Your task to perform on an android device: What's on my calendar today? Image 0: 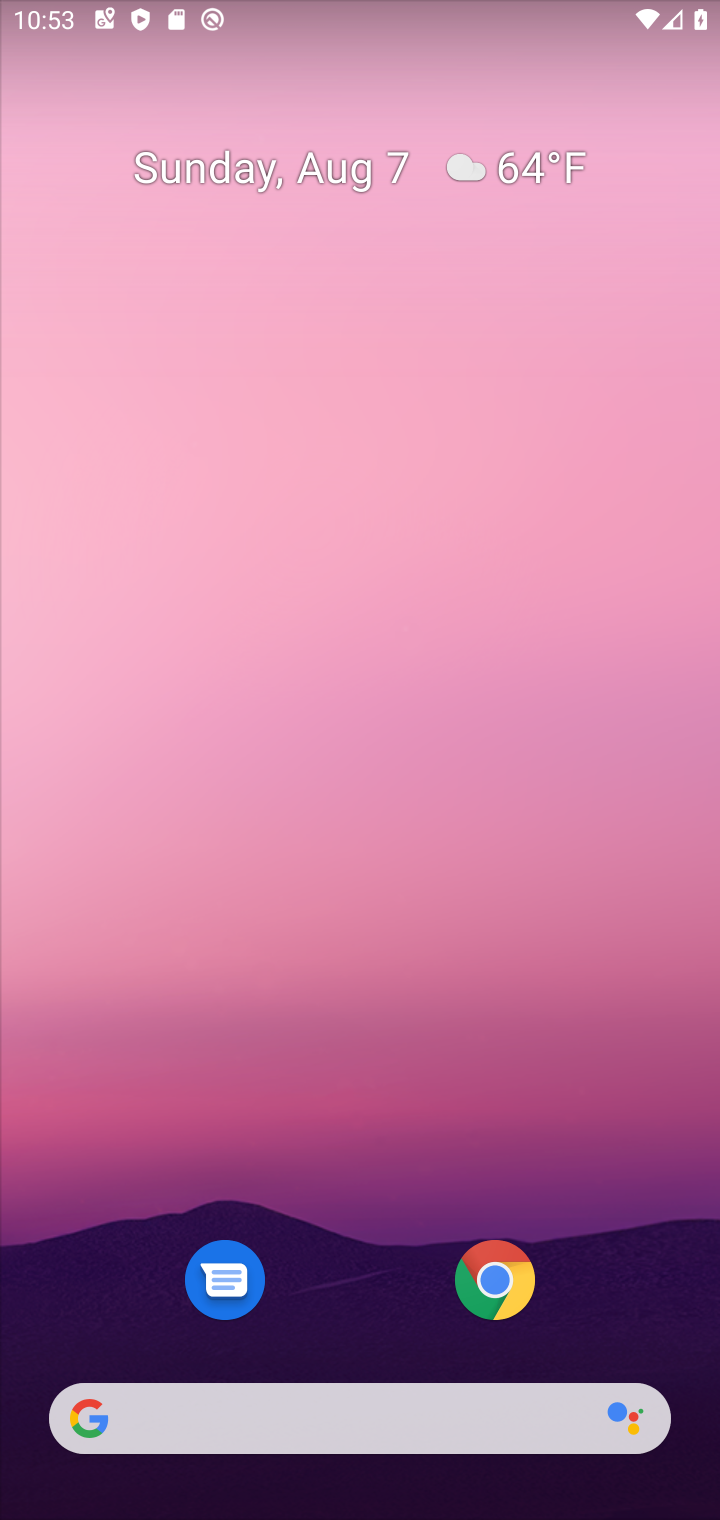
Step 0: drag from (351, 1017) to (317, 133)
Your task to perform on an android device: What's on my calendar today? Image 1: 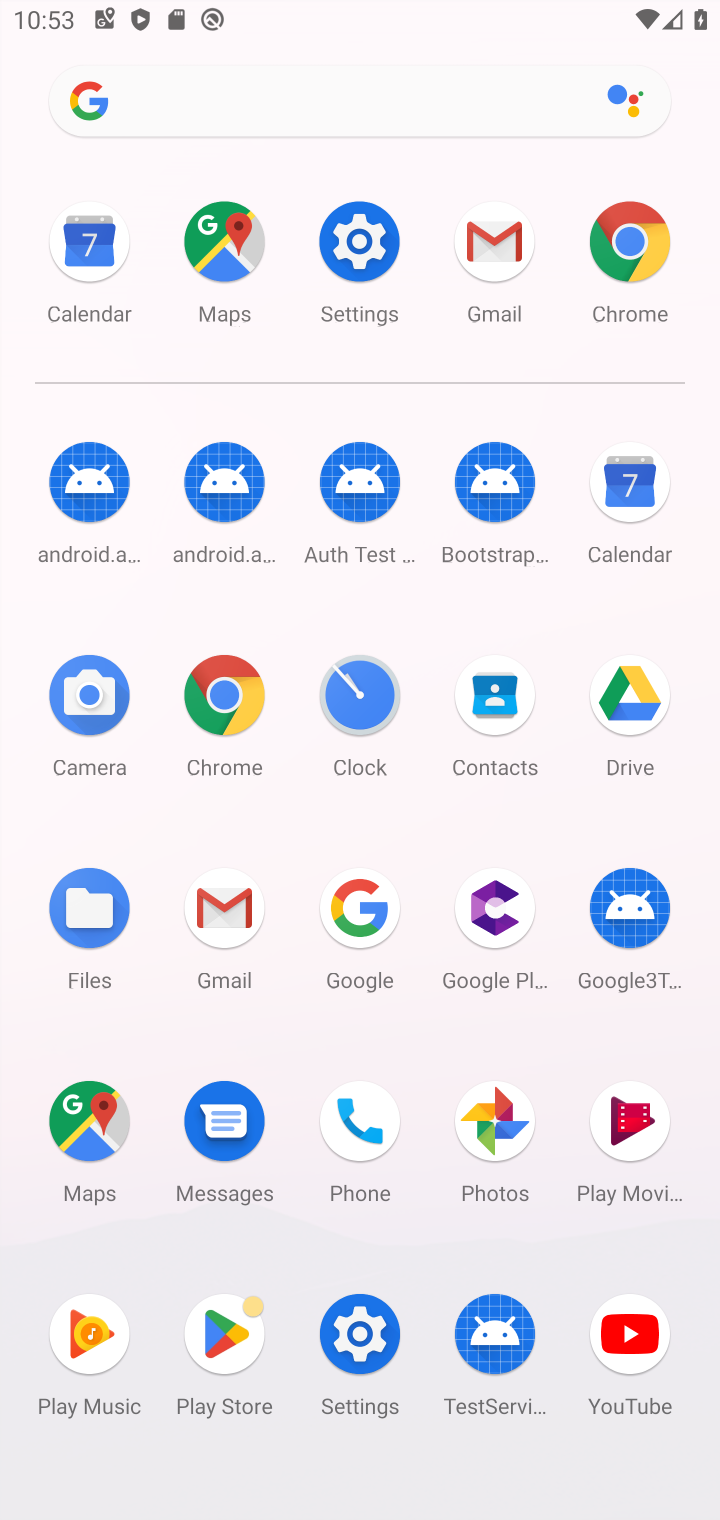
Step 1: click (637, 543)
Your task to perform on an android device: What's on my calendar today? Image 2: 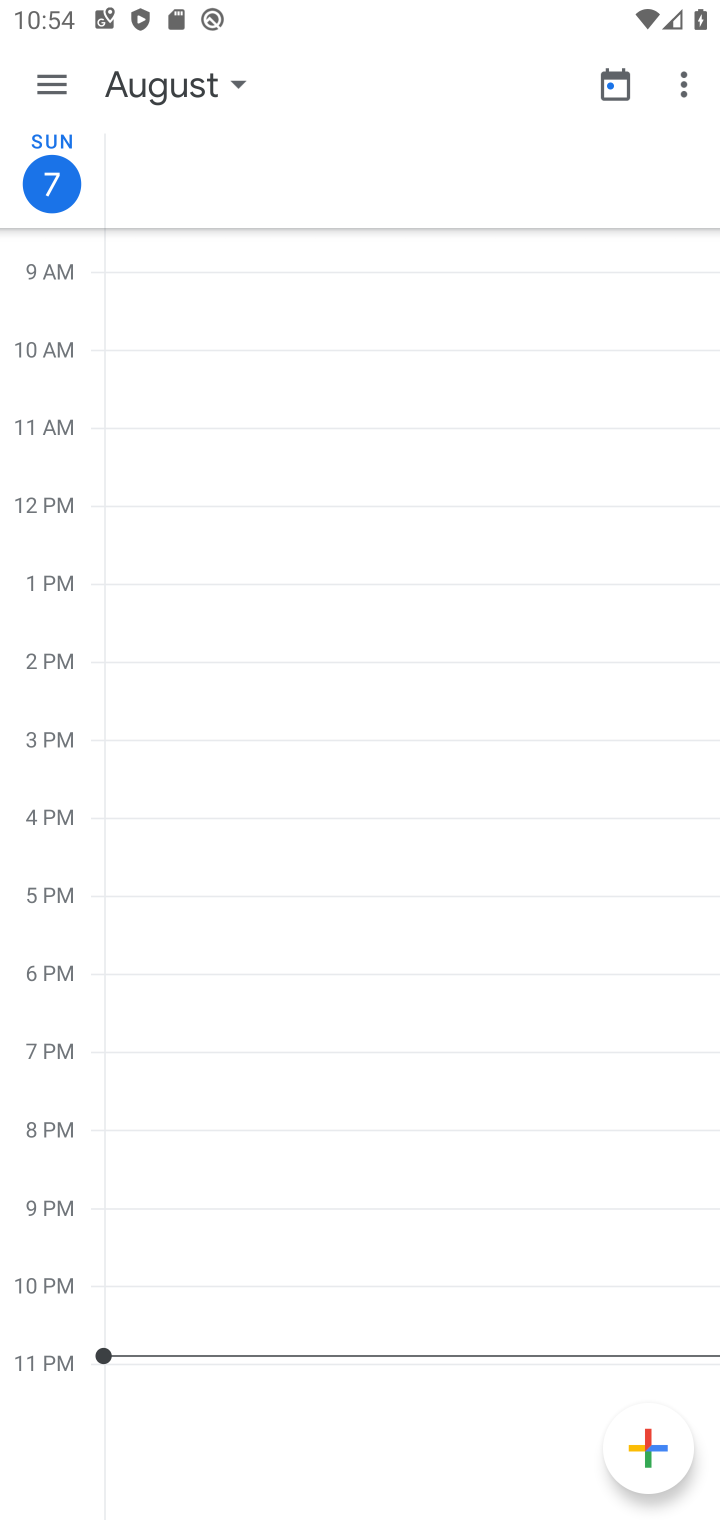
Step 2: press back button
Your task to perform on an android device: What's on my calendar today? Image 3: 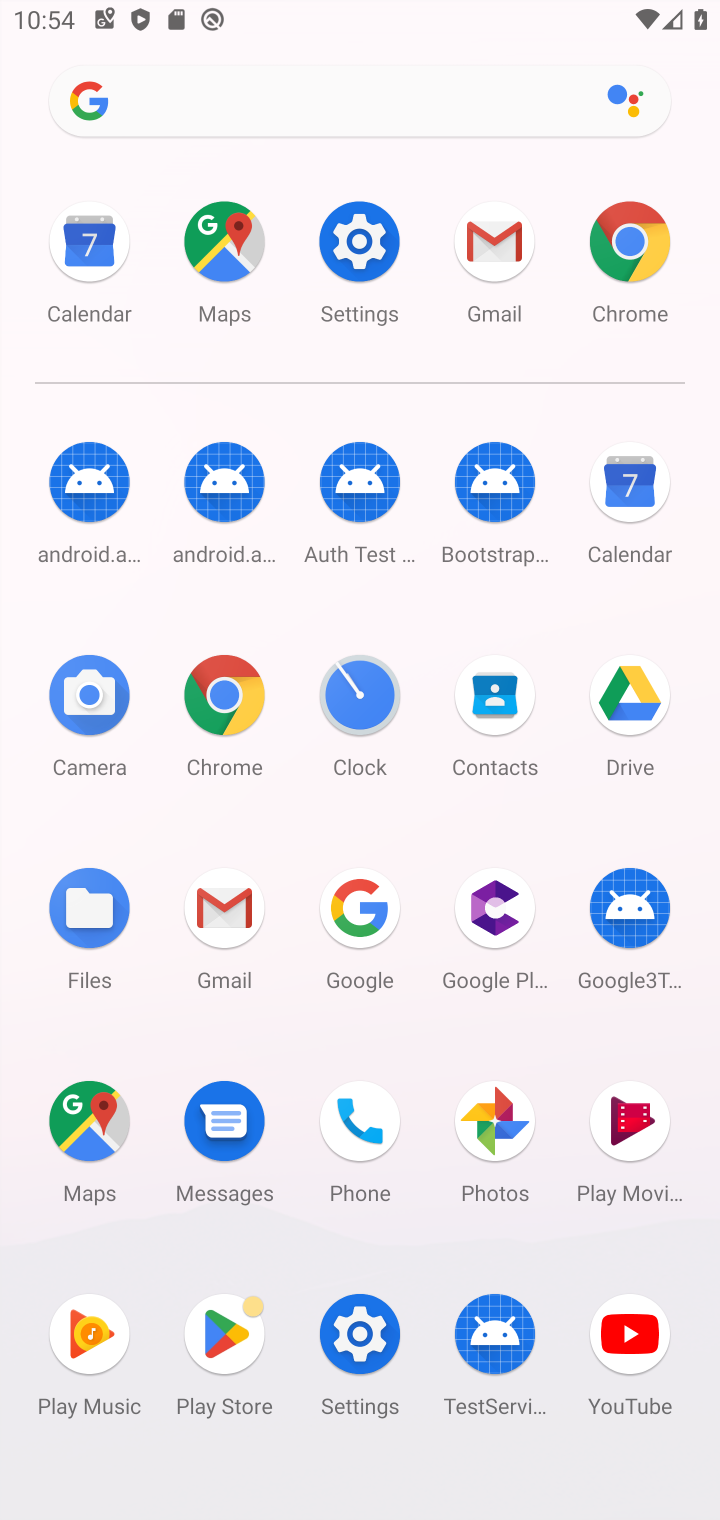
Step 3: click (638, 514)
Your task to perform on an android device: What's on my calendar today? Image 4: 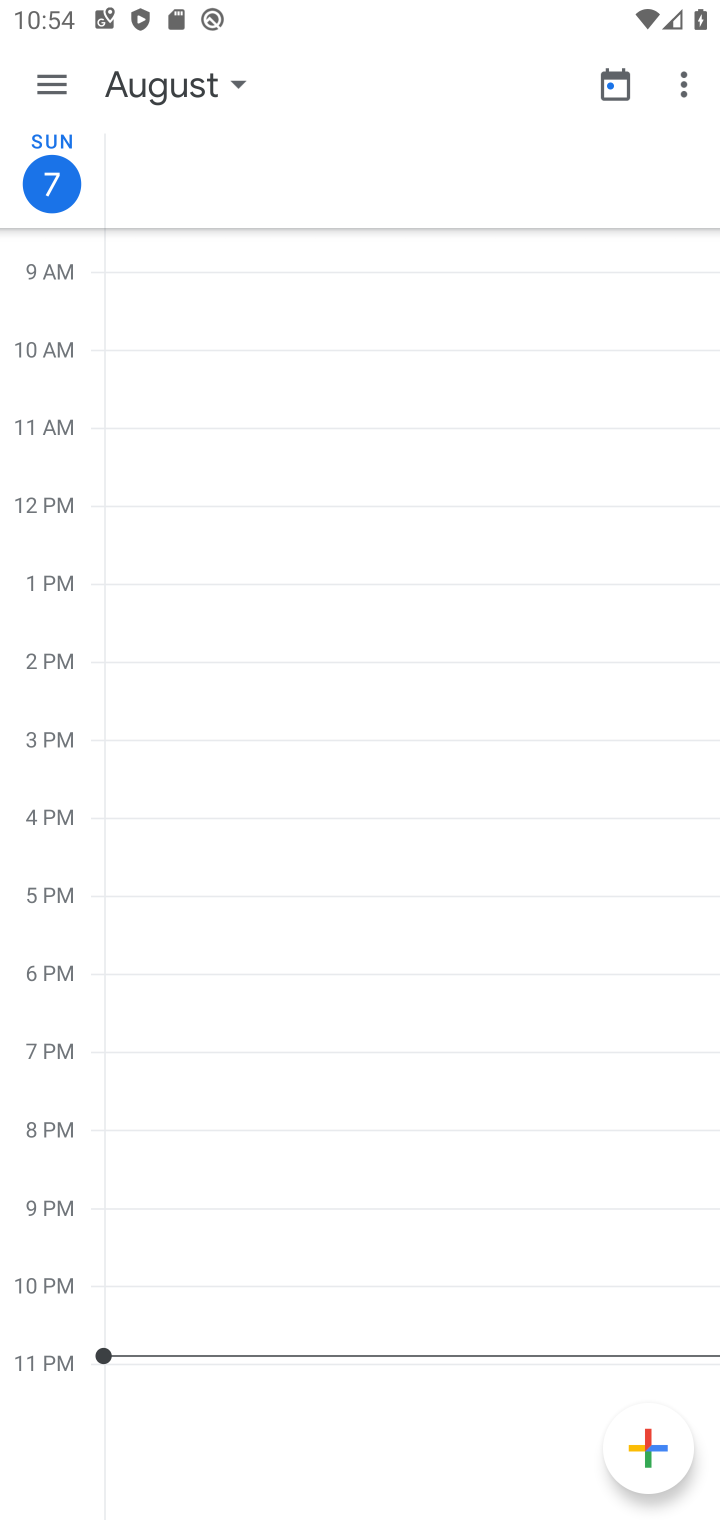
Step 4: click (35, 65)
Your task to perform on an android device: What's on my calendar today? Image 5: 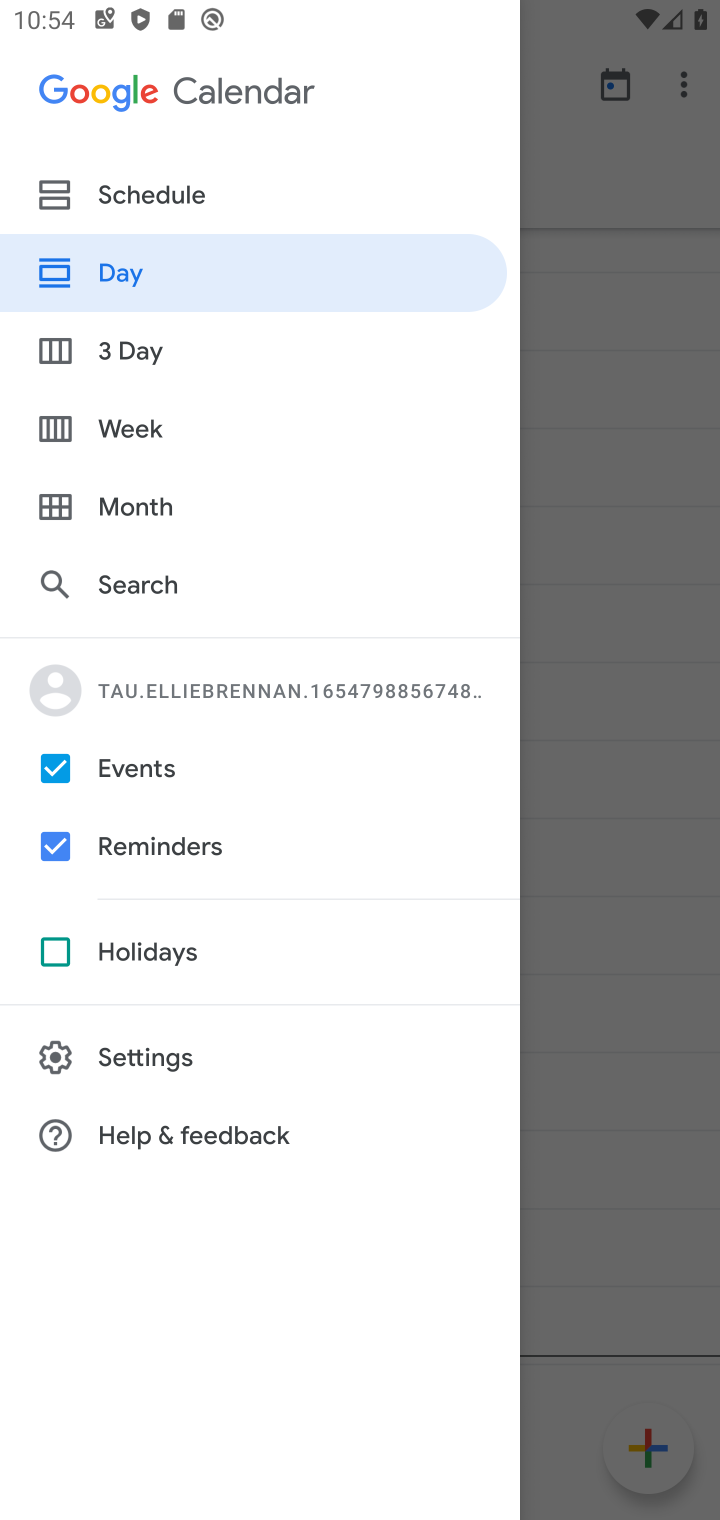
Step 5: click (228, 191)
Your task to perform on an android device: What's on my calendar today? Image 6: 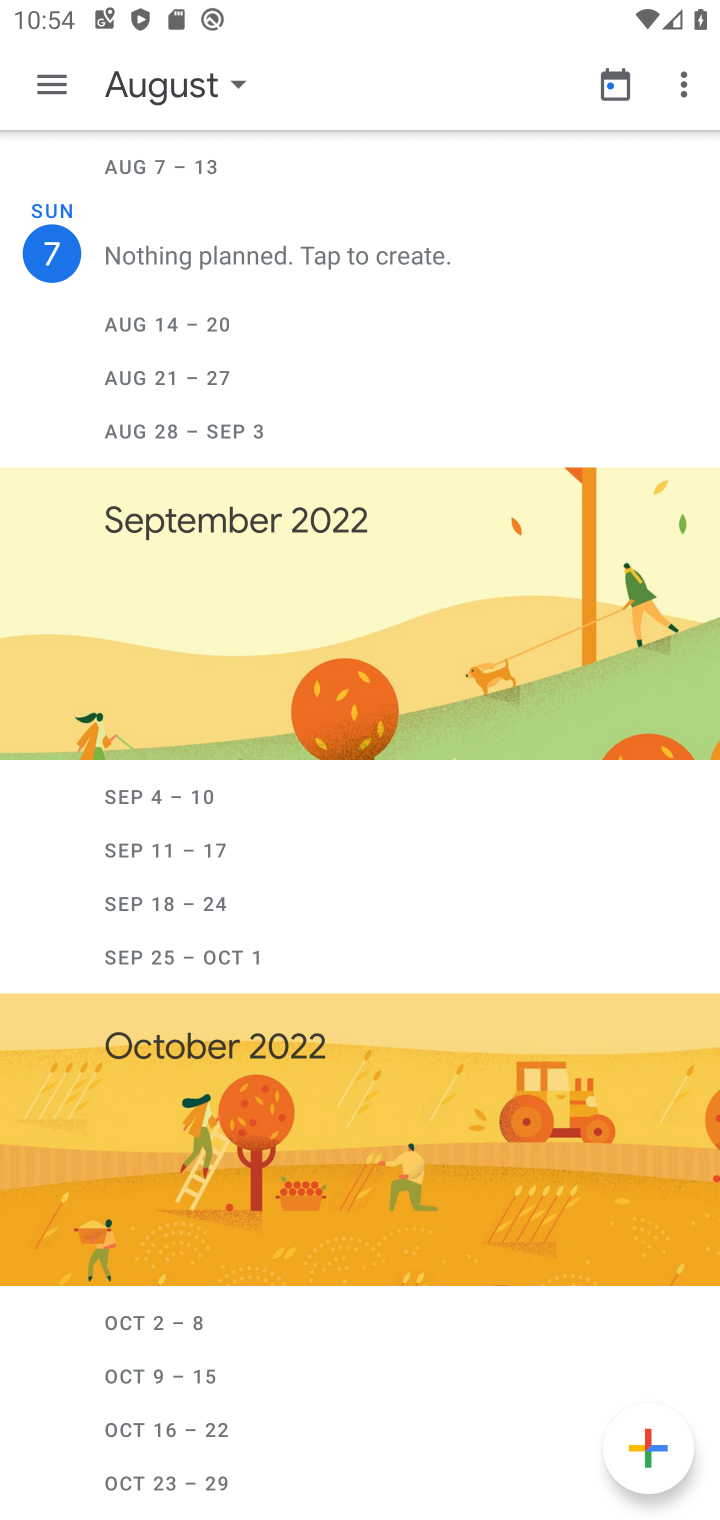
Step 6: task complete